Your task to perform on an android device: Open ESPN.com Image 0: 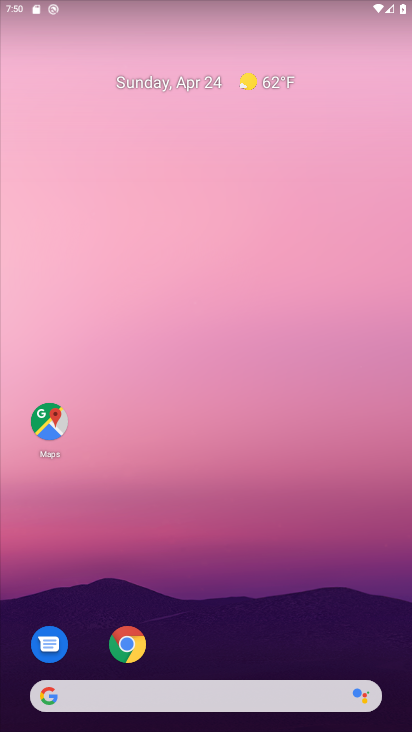
Step 0: press home button
Your task to perform on an android device: Open ESPN.com Image 1: 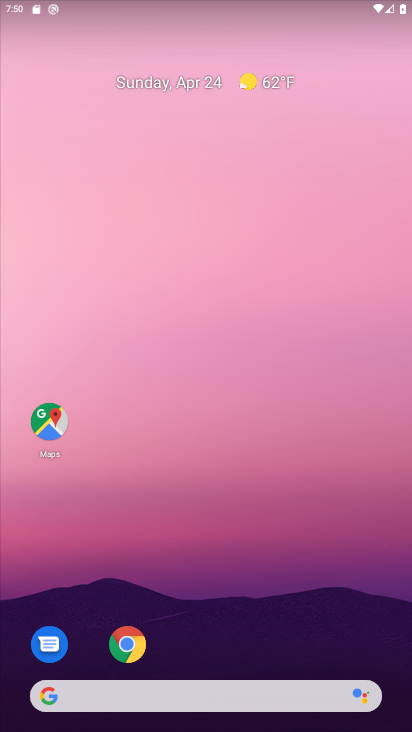
Step 1: drag from (237, 596) to (268, 97)
Your task to perform on an android device: Open ESPN.com Image 2: 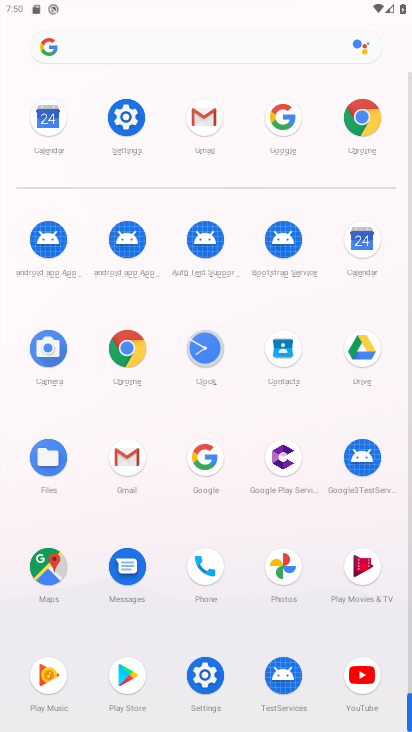
Step 2: click (124, 349)
Your task to perform on an android device: Open ESPN.com Image 3: 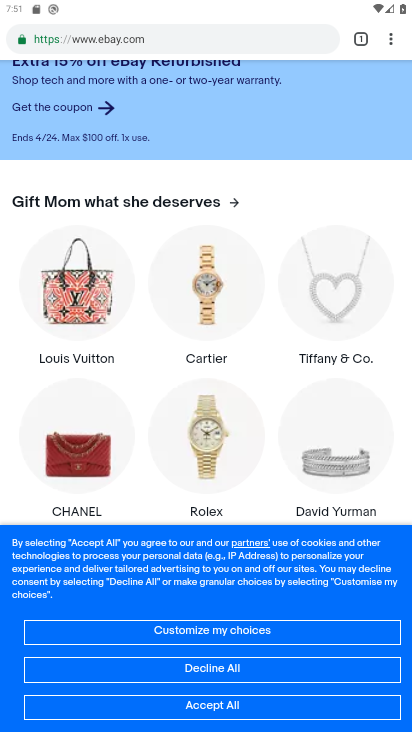
Step 3: click (353, 39)
Your task to perform on an android device: Open ESPN.com Image 4: 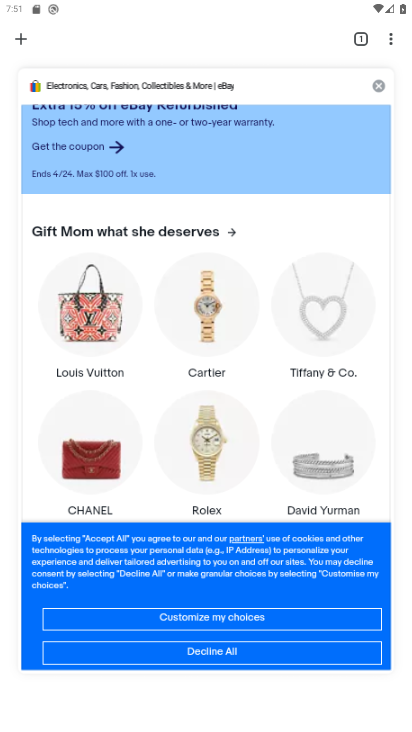
Step 4: click (373, 81)
Your task to perform on an android device: Open ESPN.com Image 5: 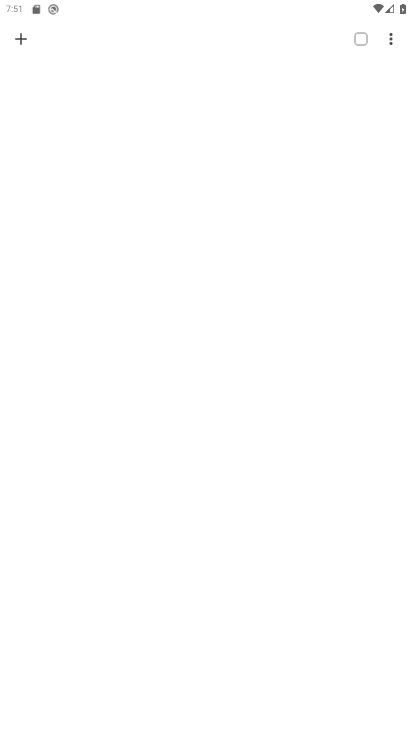
Step 5: click (19, 39)
Your task to perform on an android device: Open ESPN.com Image 6: 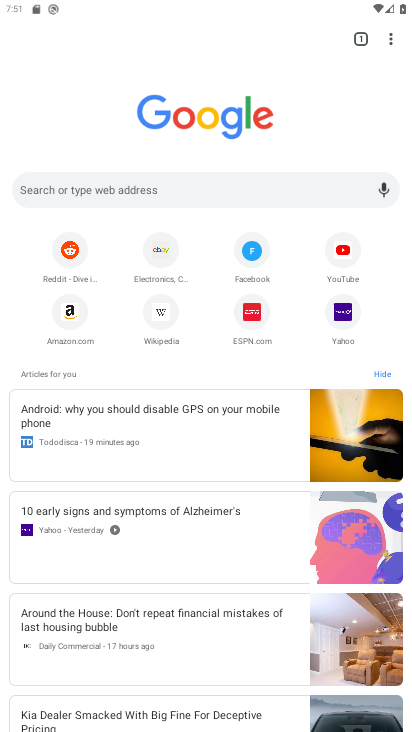
Step 6: click (244, 315)
Your task to perform on an android device: Open ESPN.com Image 7: 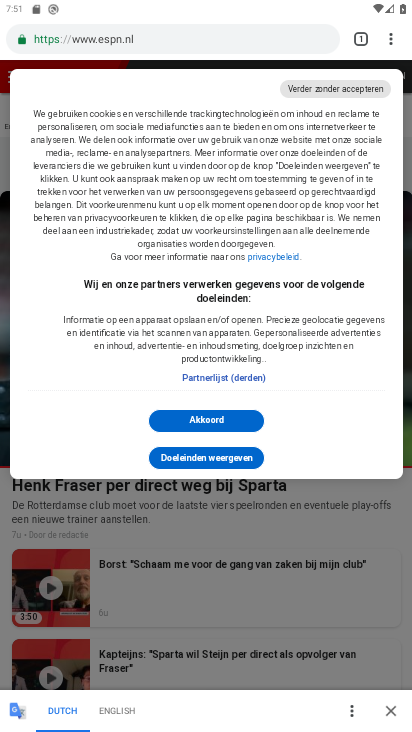
Step 7: click (207, 415)
Your task to perform on an android device: Open ESPN.com Image 8: 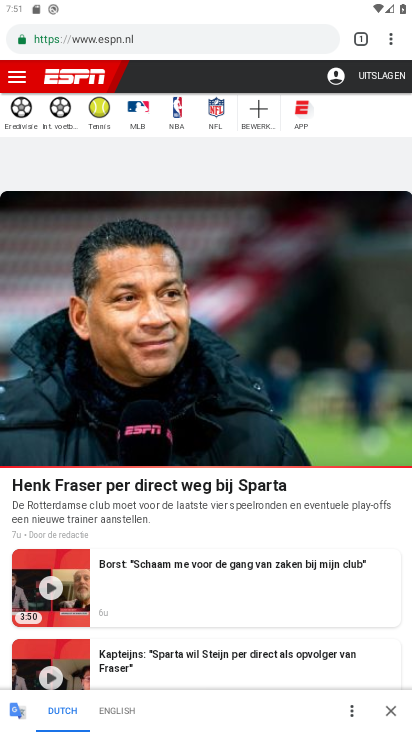
Step 8: task complete